Your task to perform on an android device: set the timer Image 0: 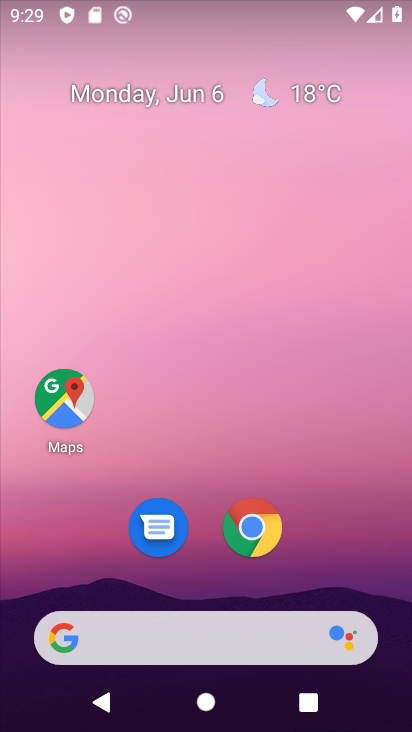
Step 0: drag from (177, 590) to (198, 10)
Your task to perform on an android device: set the timer Image 1: 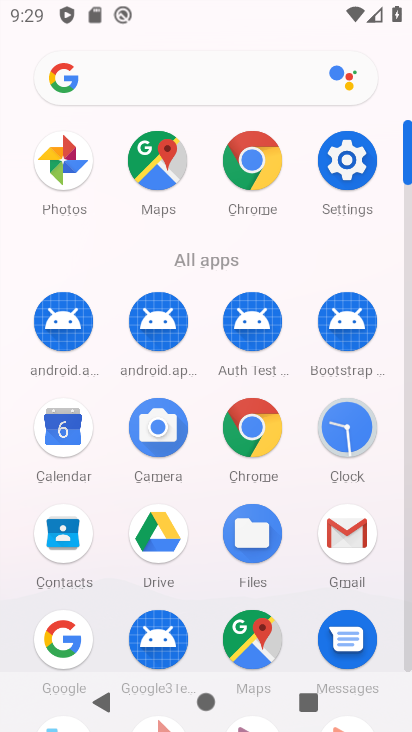
Step 1: click (339, 434)
Your task to perform on an android device: set the timer Image 2: 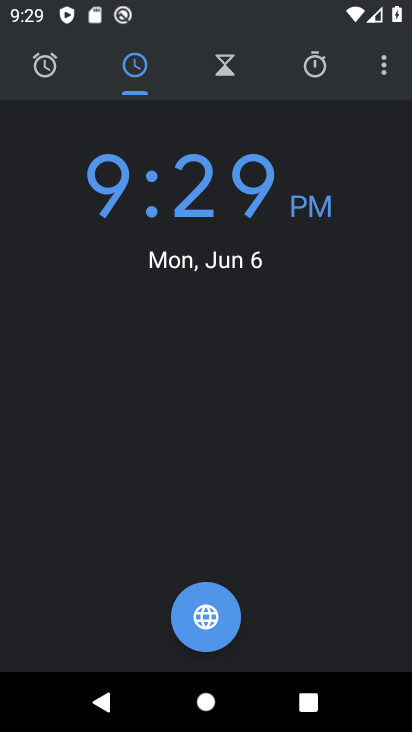
Step 2: click (216, 73)
Your task to perform on an android device: set the timer Image 3: 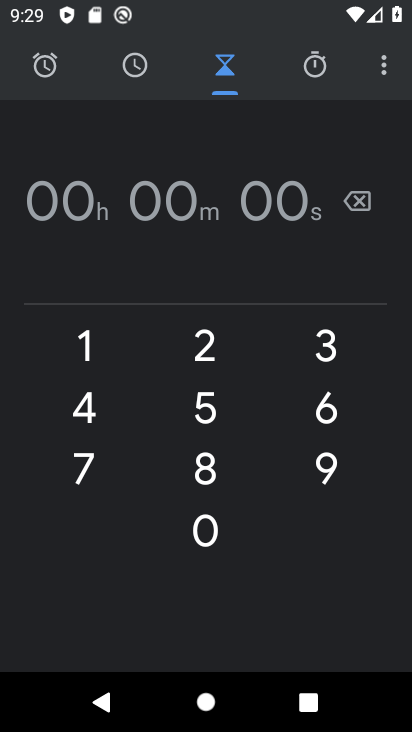
Step 3: click (213, 329)
Your task to perform on an android device: set the timer Image 4: 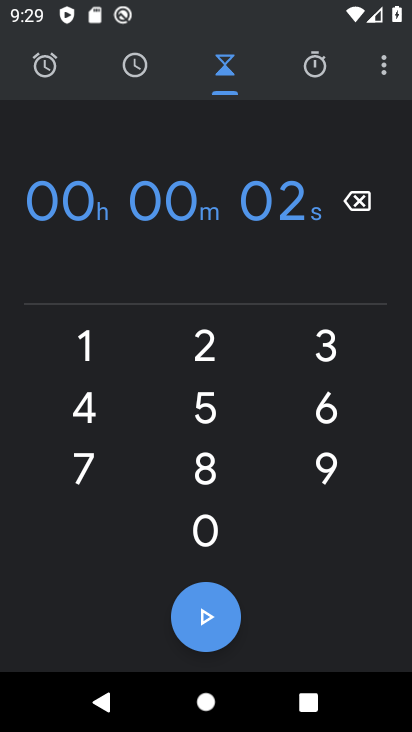
Step 4: click (203, 641)
Your task to perform on an android device: set the timer Image 5: 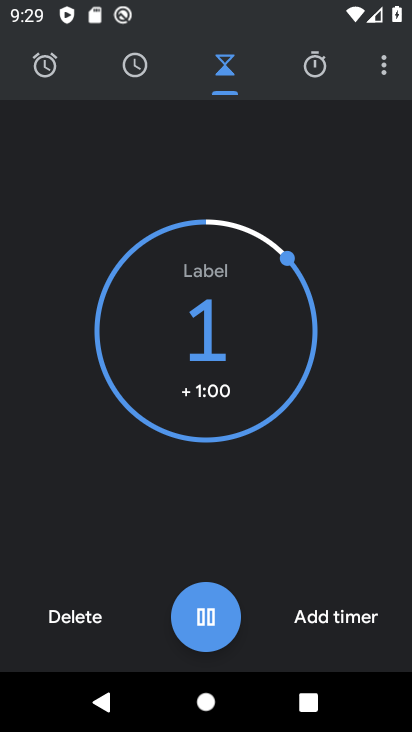
Step 5: task complete